Your task to perform on an android device: What's the weather? Image 0: 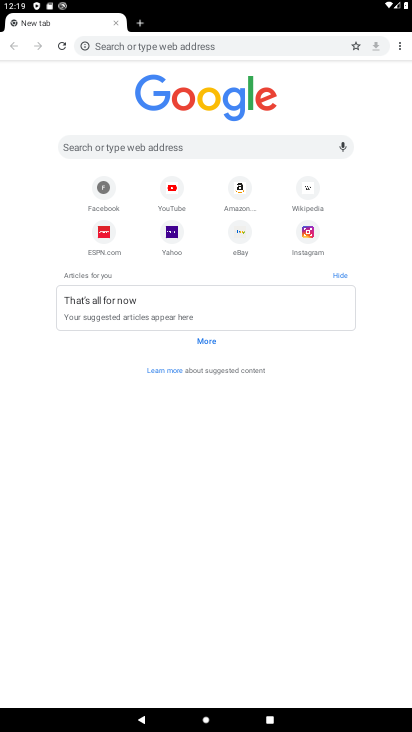
Step 0: press home button
Your task to perform on an android device: What's the weather? Image 1: 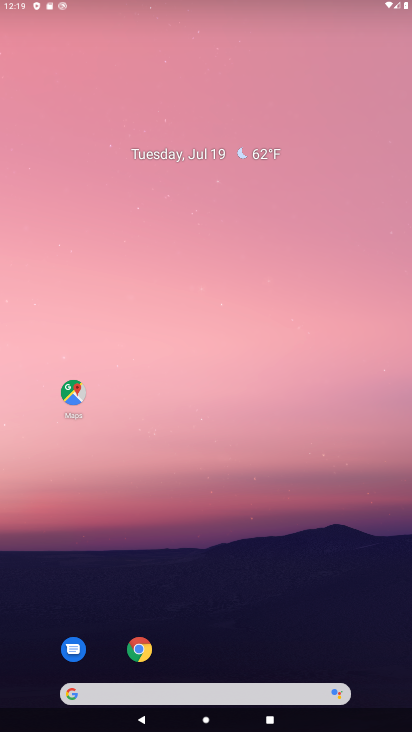
Step 1: drag from (202, 661) to (231, 143)
Your task to perform on an android device: What's the weather? Image 2: 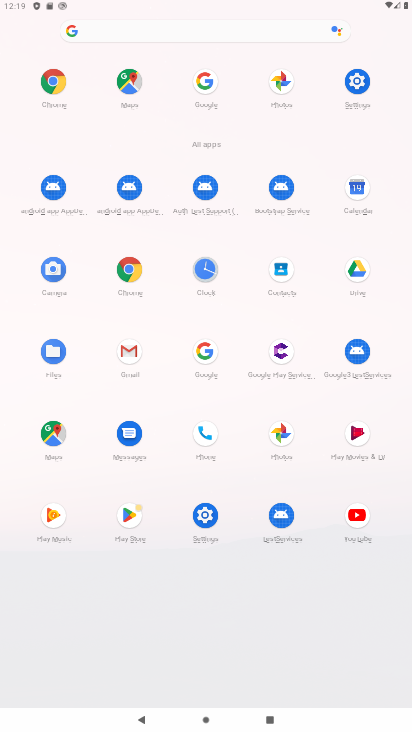
Step 2: click (203, 343)
Your task to perform on an android device: What's the weather? Image 3: 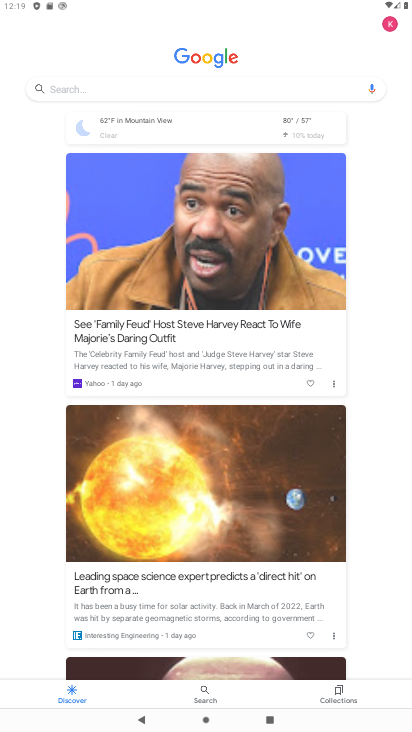
Step 3: click (126, 85)
Your task to perform on an android device: What's the weather? Image 4: 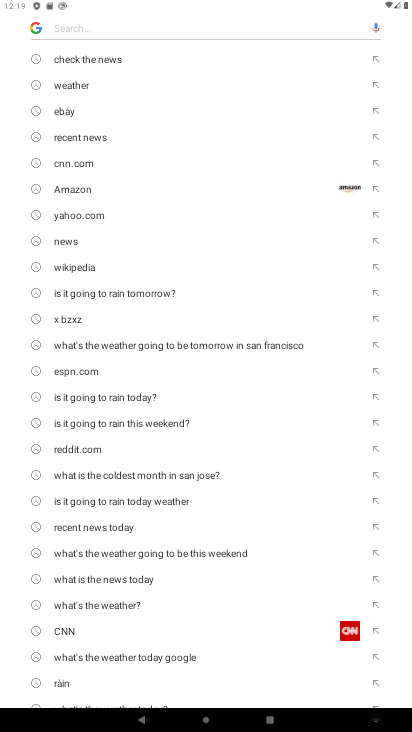
Step 4: click (92, 85)
Your task to perform on an android device: What's the weather? Image 5: 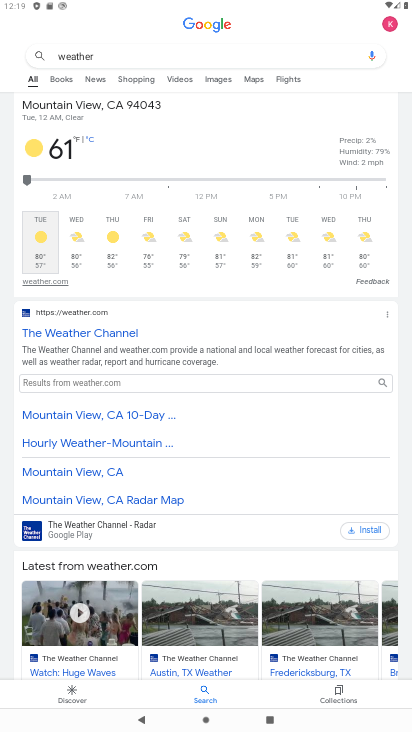
Step 5: task complete